Your task to perform on an android device: open app "VLC for Android" (install if not already installed) Image 0: 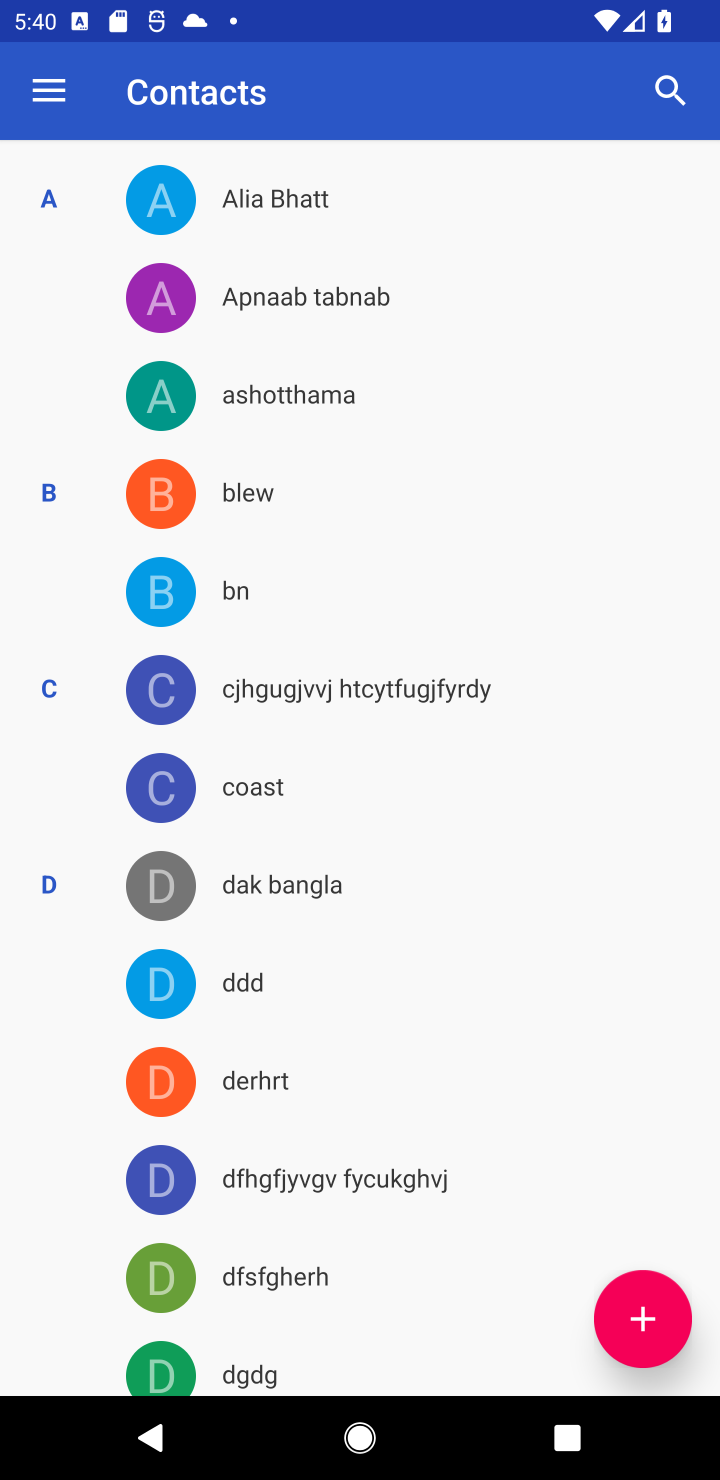
Step 0: press home button
Your task to perform on an android device: open app "VLC for Android" (install if not already installed) Image 1: 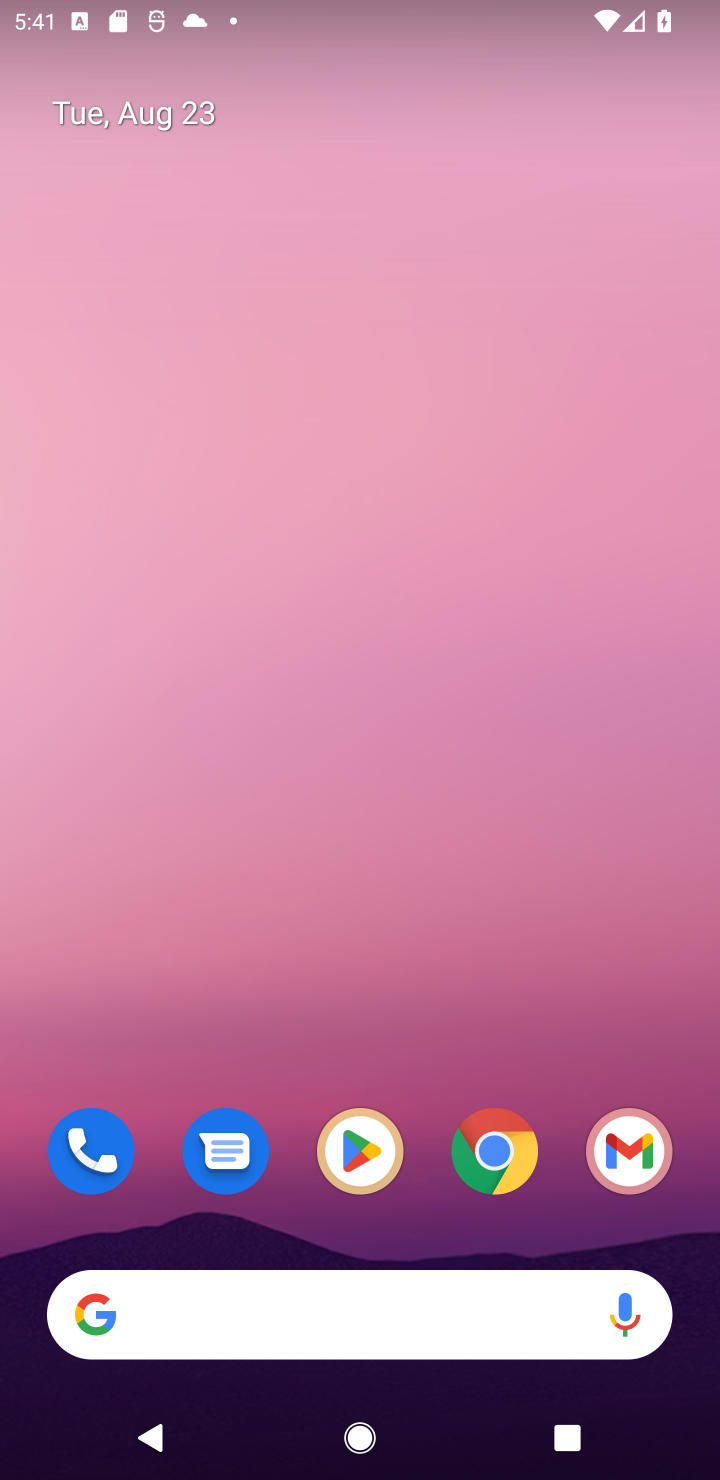
Step 1: click (346, 1133)
Your task to perform on an android device: open app "VLC for Android" (install if not already installed) Image 2: 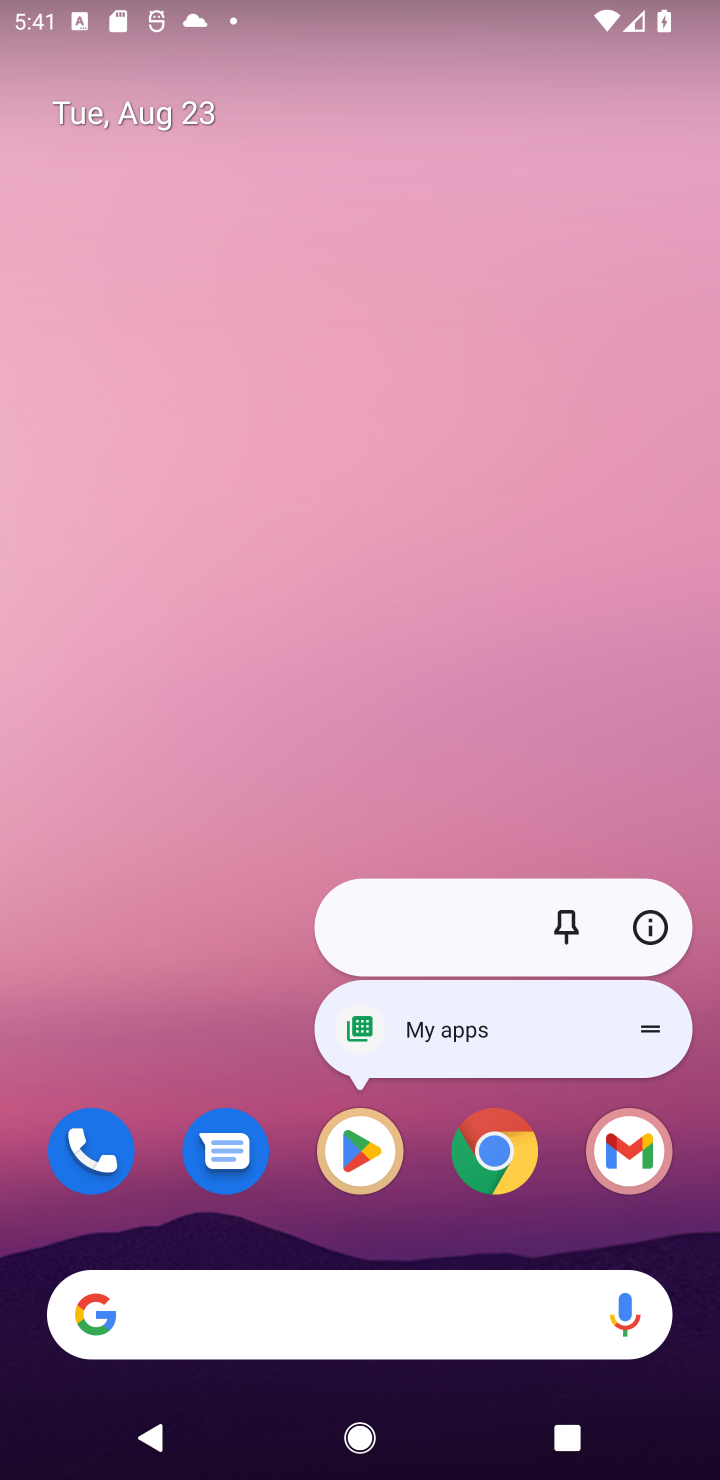
Step 2: click (346, 1148)
Your task to perform on an android device: open app "VLC for Android" (install if not already installed) Image 3: 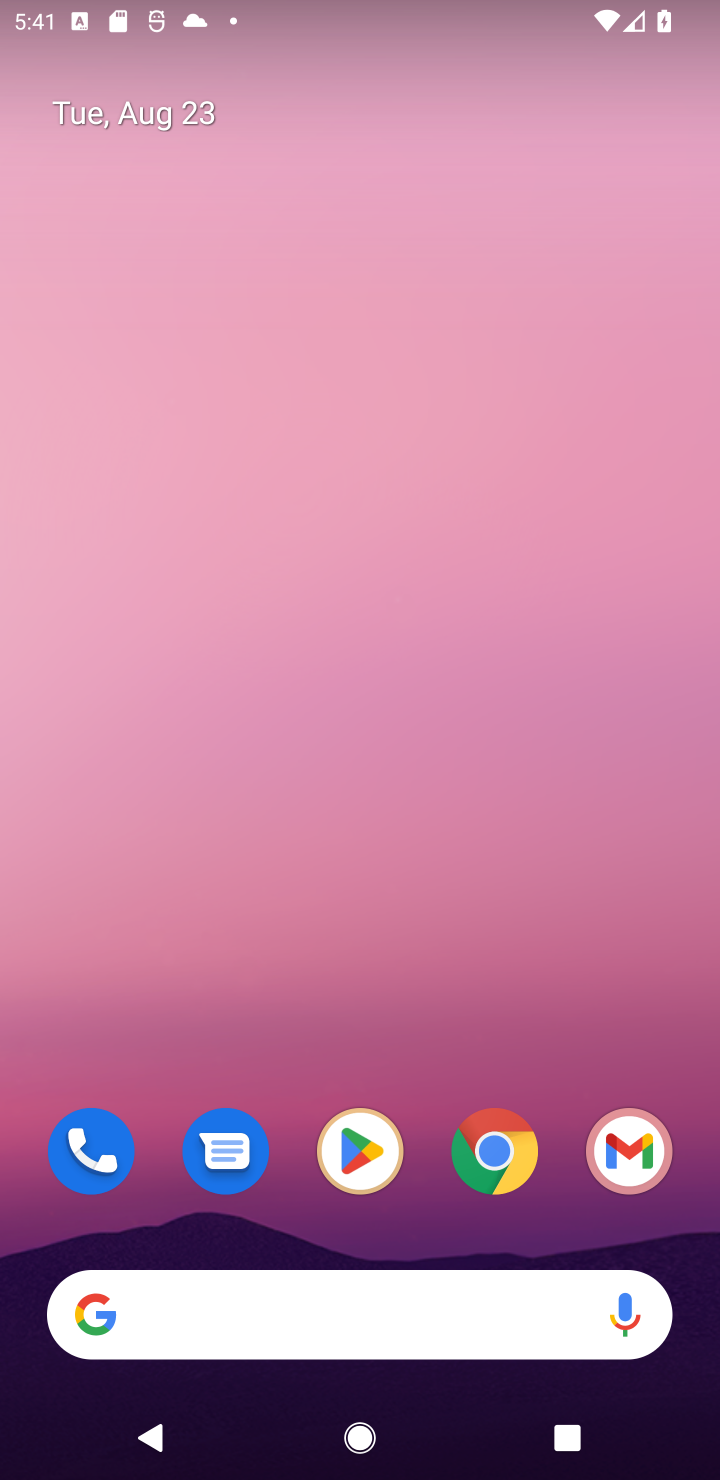
Step 3: click (346, 1148)
Your task to perform on an android device: open app "VLC for Android" (install if not already installed) Image 4: 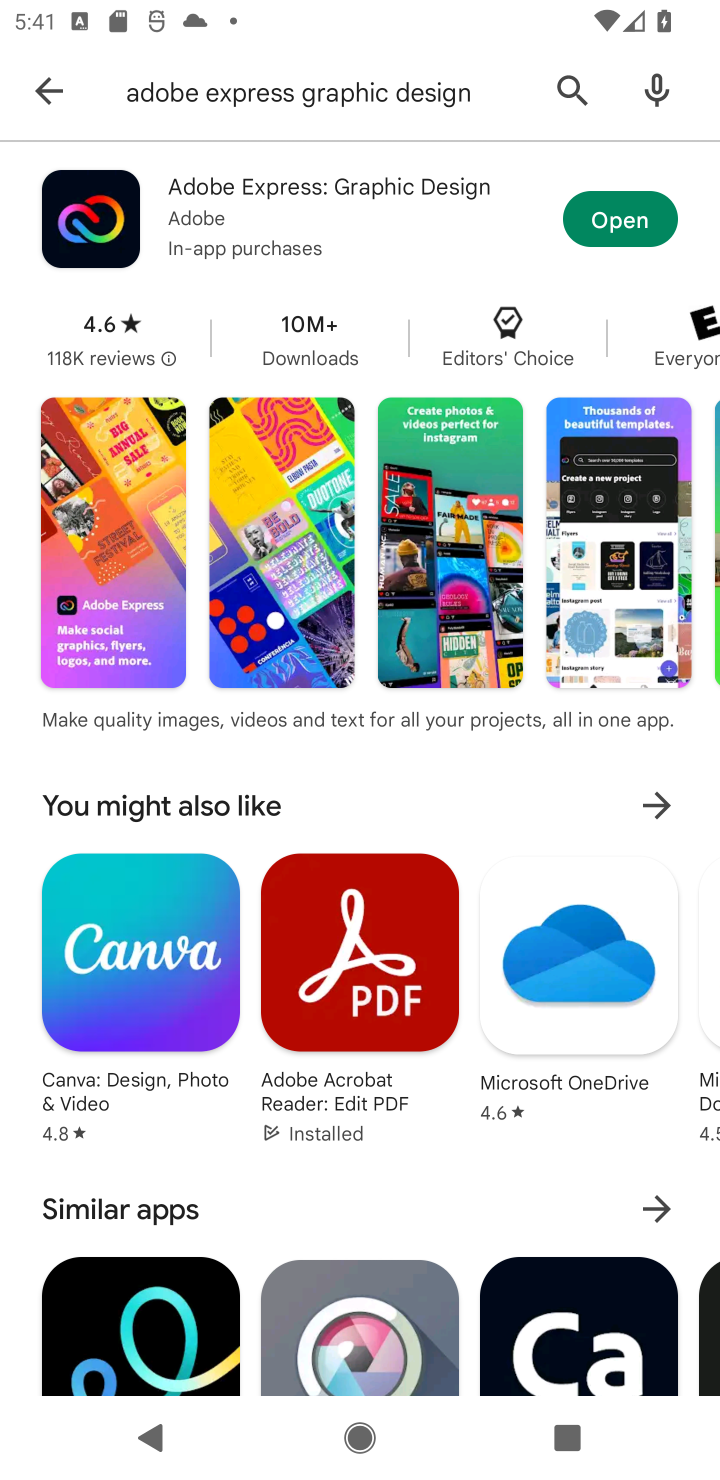
Step 4: click (571, 59)
Your task to perform on an android device: open app "VLC for Android" (install if not already installed) Image 5: 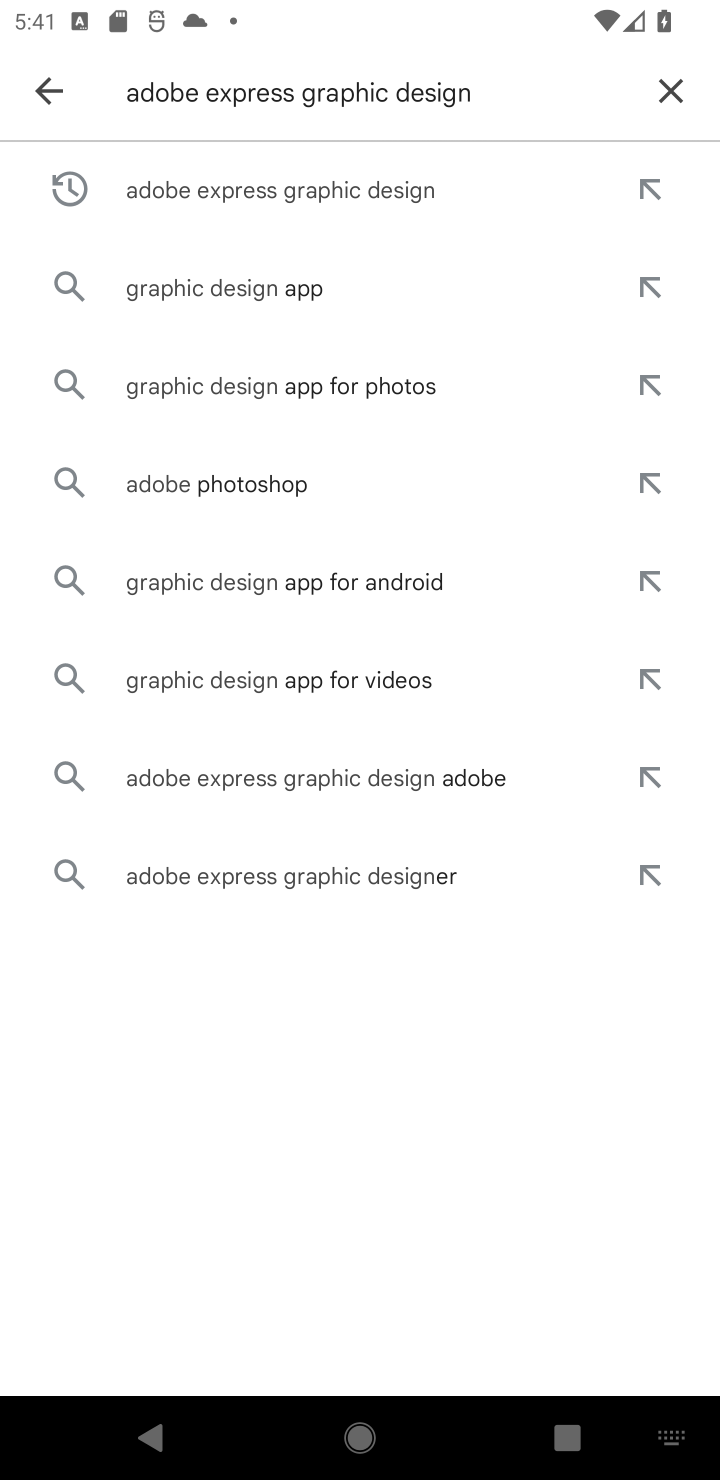
Step 5: click (662, 78)
Your task to perform on an android device: open app "VLC for Android" (install if not already installed) Image 6: 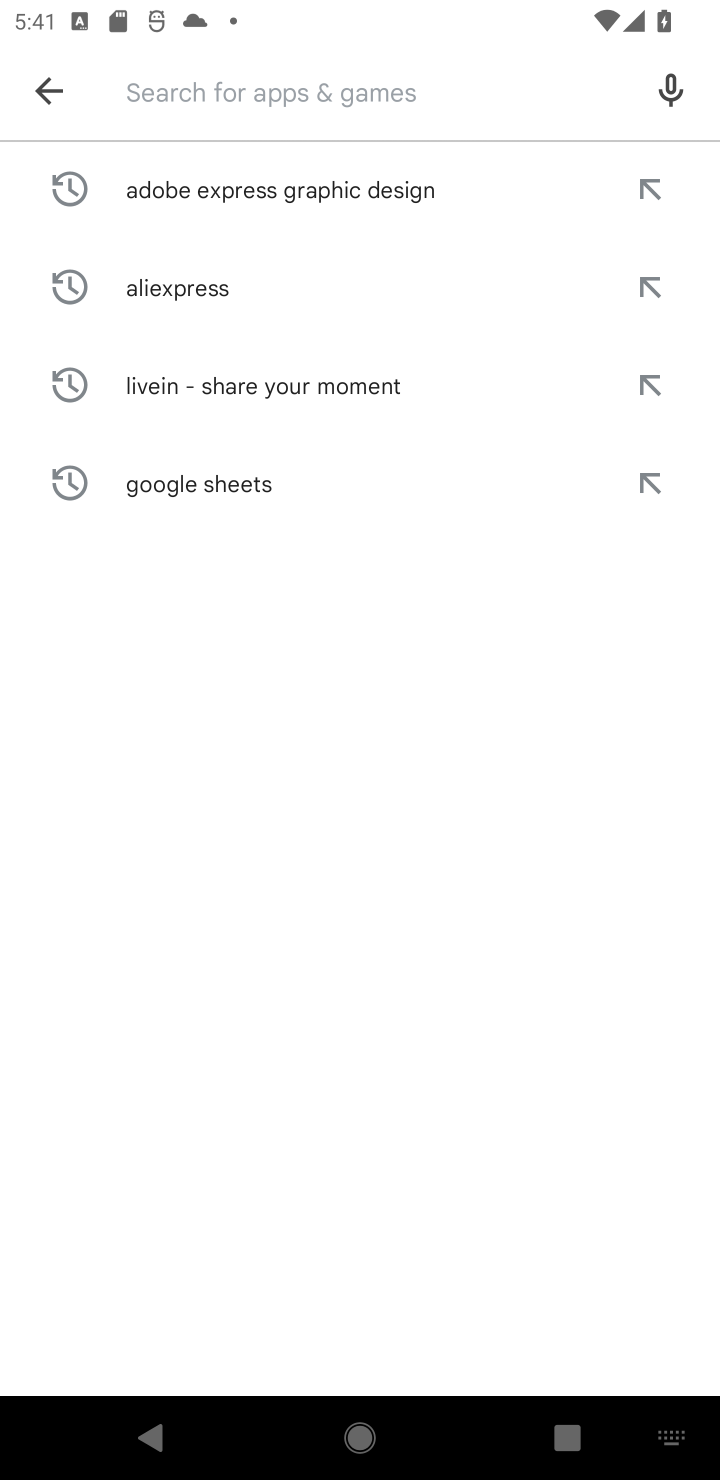
Step 6: type "VLC for Android"
Your task to perform on an android device: open app "VLC for Android" (install if not already installed) Image 7: 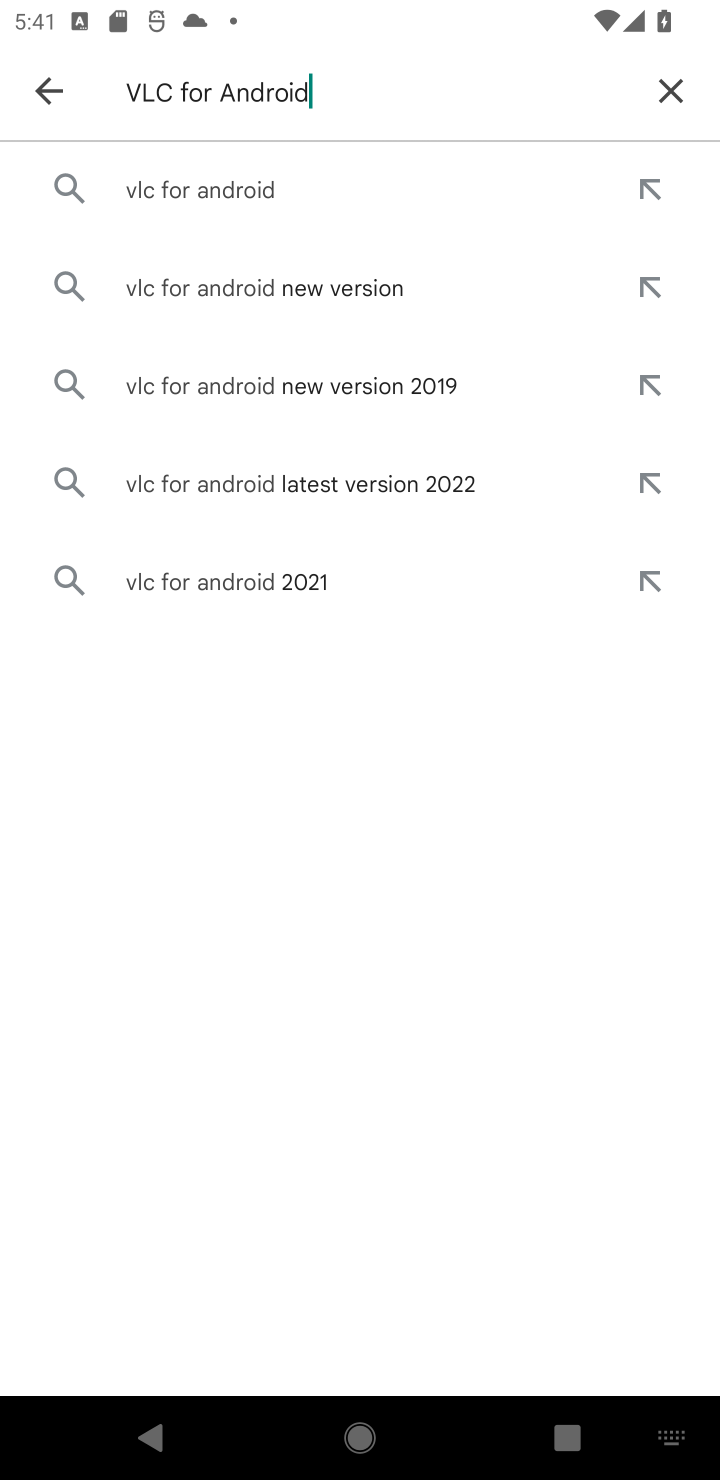
Step 7: click (208, 180)
Your task to perform on an android device: open app "VLC for Android" (install if not already installed) Image 8: 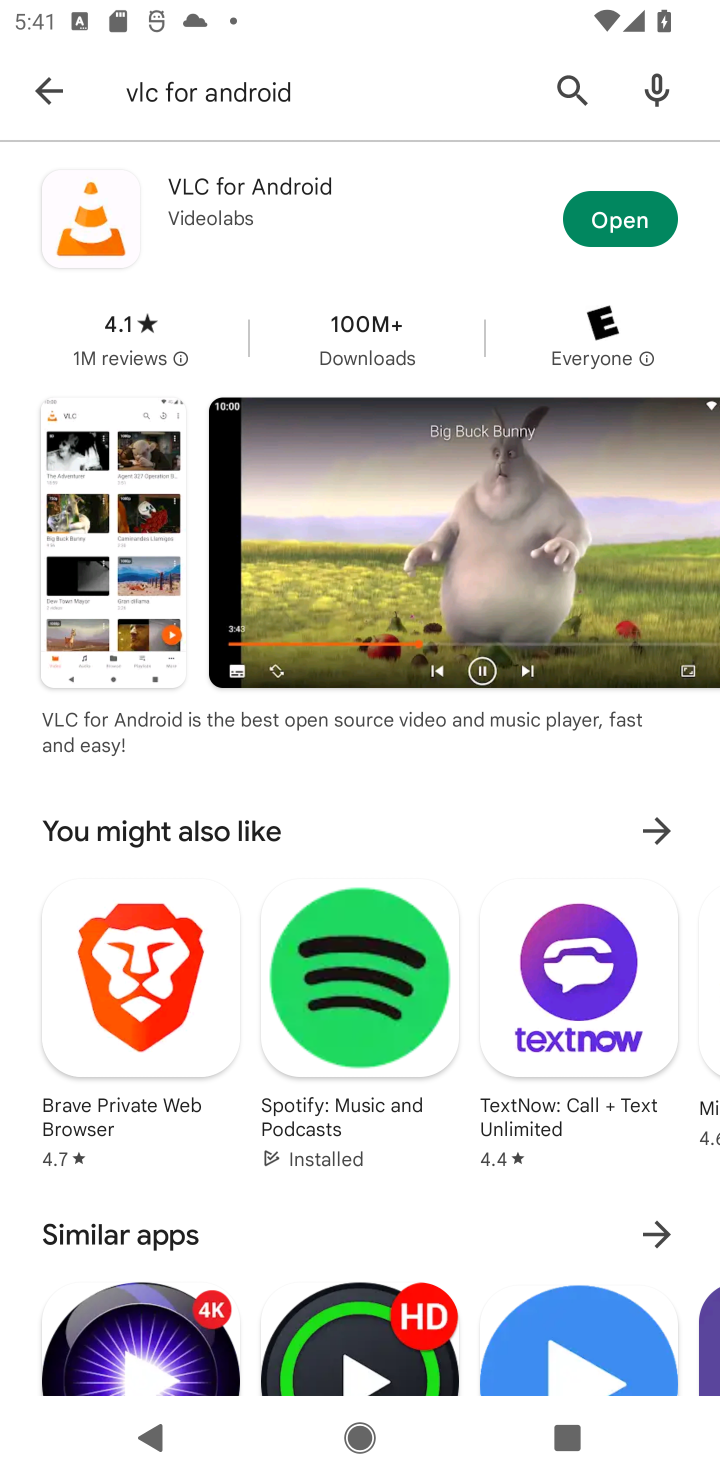
Step 8: click (640, 209)
Your task to perform on an android device: open app "VLC for Android" (install if not already installed) Image 9: 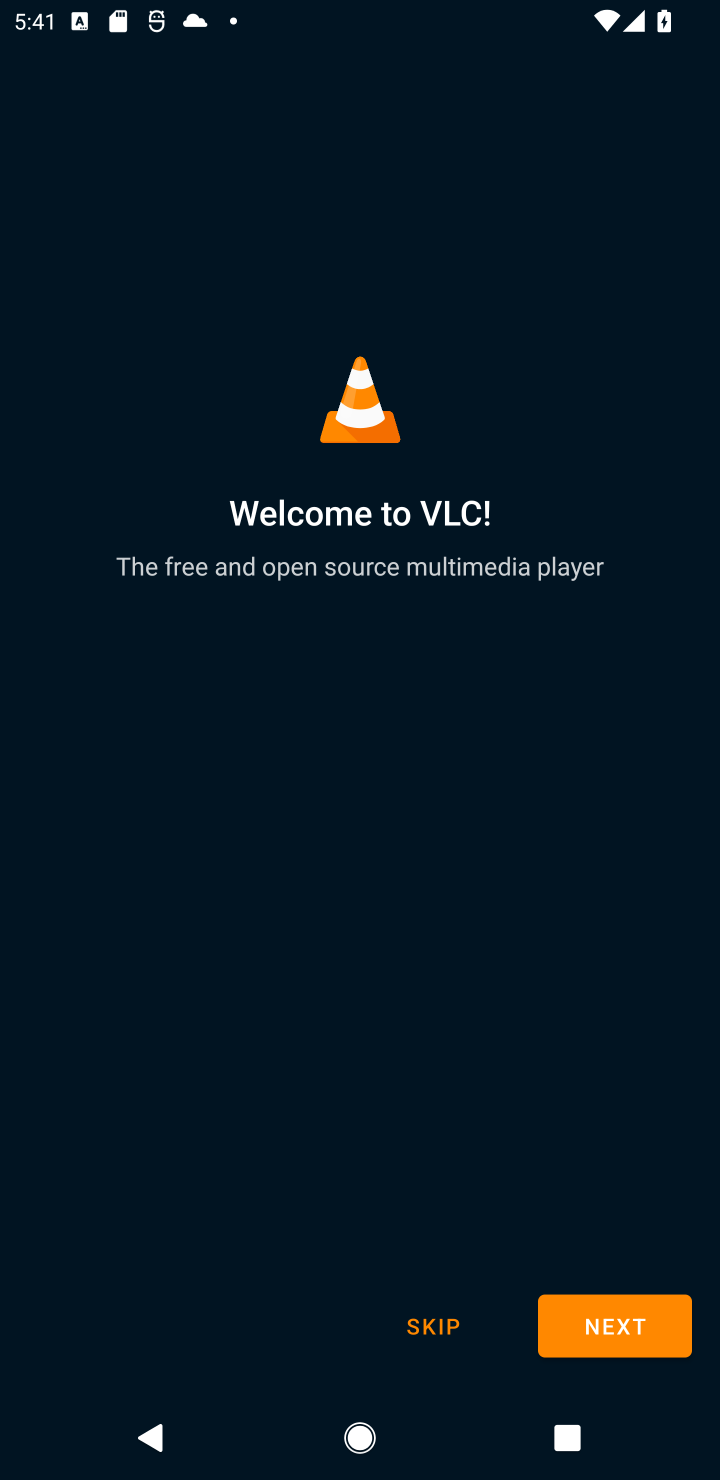
Step 9: click (649, 1323)
Your task to perform on an android device: open app "VLC for Android" (install if not already installed) Image 10: 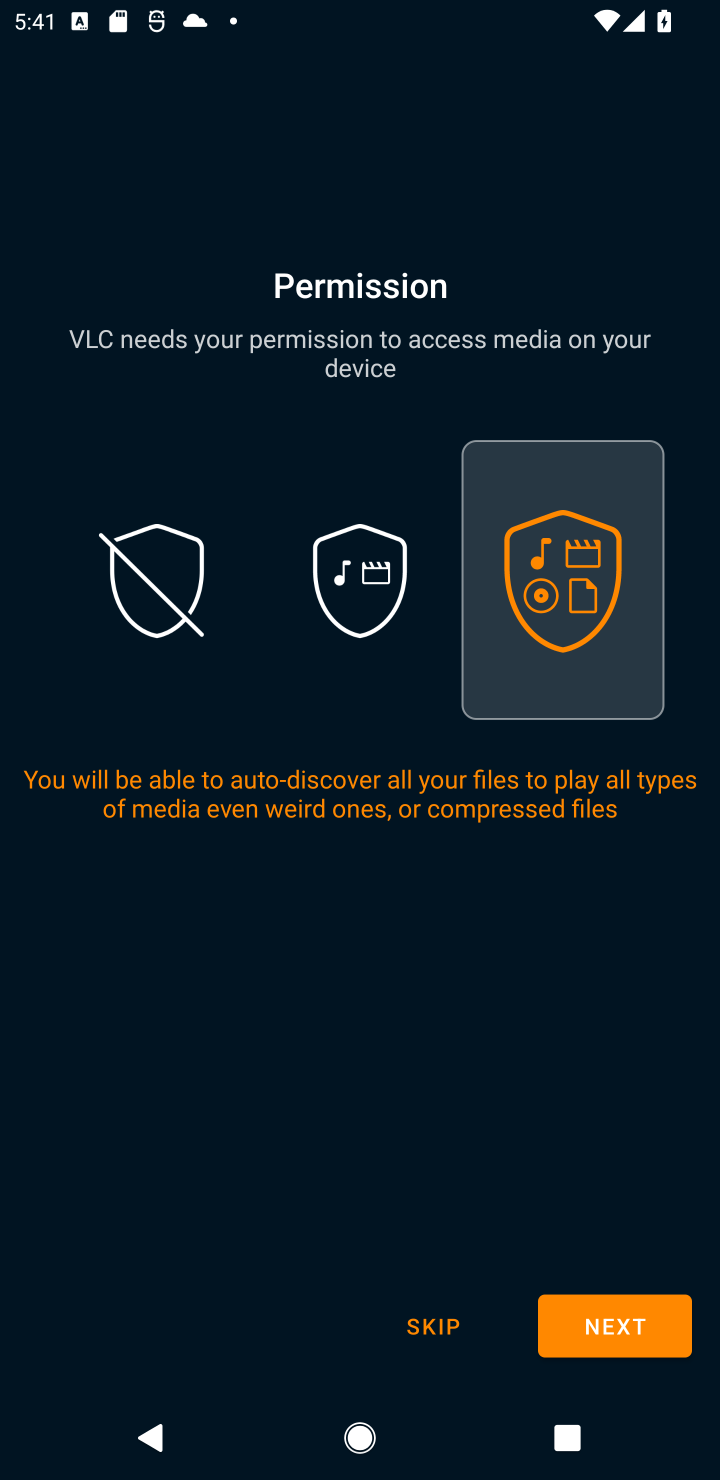
Step 10: task complete